Your task to perform on an android device: Empty the shopping cart on amazon.com. Search for "dell xps" on amazon.com, select the first entry, add it to the cart, then select checkout. Image 0: 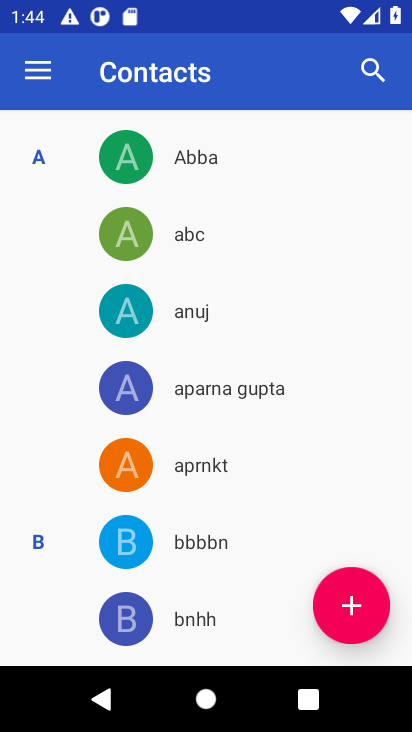
Step 0: press home button
Your task to perform on an android device: Empty the shopping cart on amazon.com. Search for "dell xps" on amazon.com, select the first entry, add it to the cart, then select checkout. Image 1: 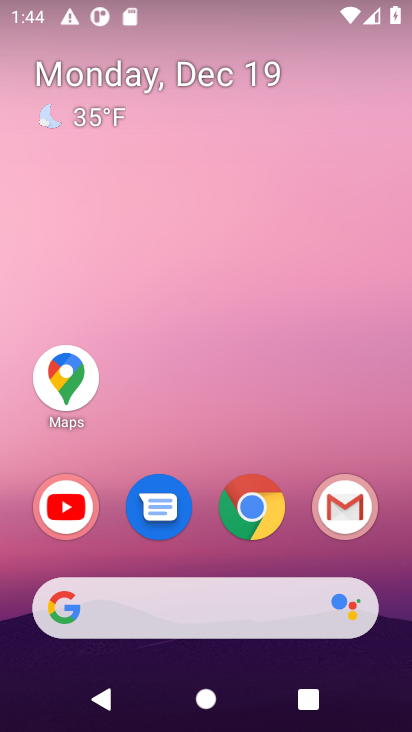
Step 1: click (254, 516)
Your task to perform on an android device: Empty the shopping cart on amazon.com. Search for "dell xps" on amazon.com, select the first entry, add it to the cart, then select checkout. Image 2: 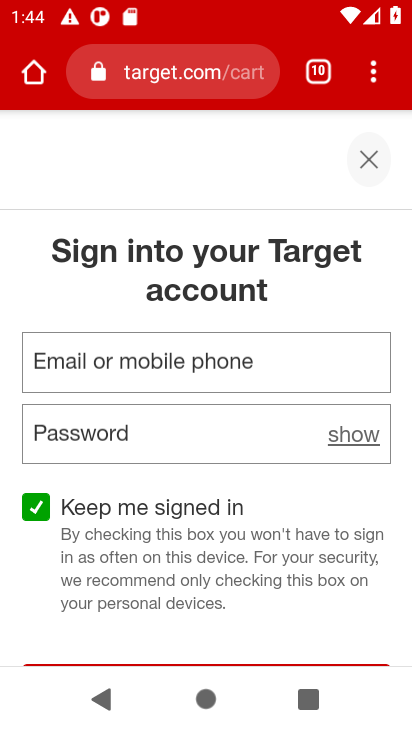
Step 2: click (162, 80)
Your task to perform on an android device: Empty the shopping cart on amazon.com. Search for "dell xps" on amazon.com, select the first entry, add it to the cart, then select checkout. Image 3: 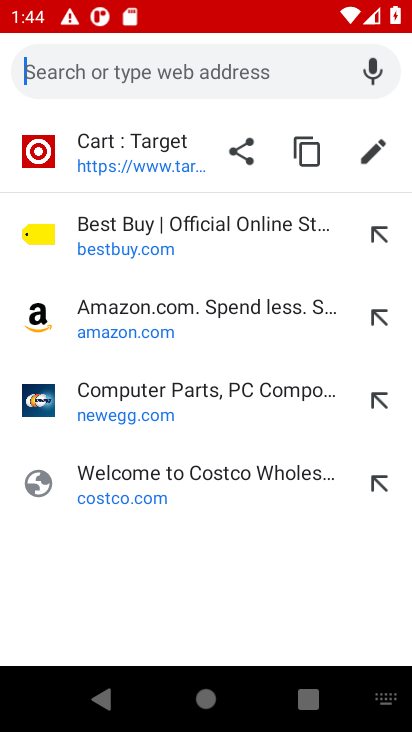
Step 3: click (136, 324)
Your task to perform on an android device: Empty the shopping cart on amazon.com. Search for "dell xps" on amazon.com, select the first entry, add it to the cart, then select checkout. Image 4: 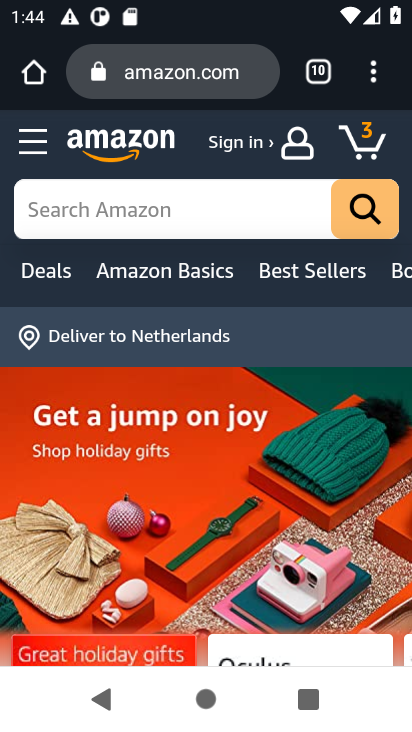
Step 4: click (371, 142)
Your task to perform on an android device: Empty the shopping cart on amazon.com. Search for "dell xps" on amazon.com, select the first entry, add it to the cart, then select checkout. Image 5: 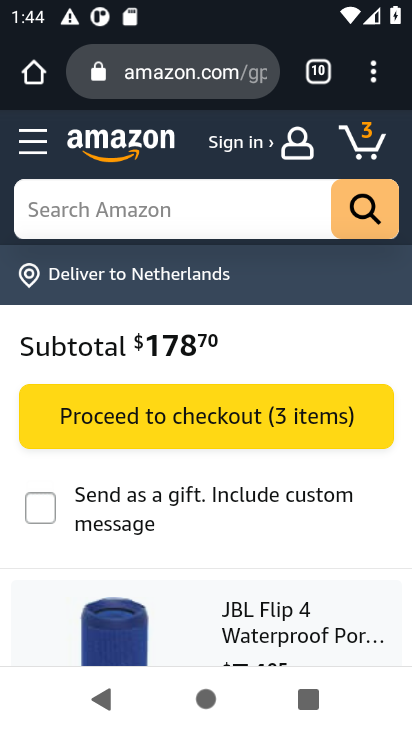
Step 5: drag from (226, 493) to (225, 188)
Your task to perform on an android device: Empty the shopping cart on amazon.com. Search for "dell xps" on amazon.com, select the first entry, add it to the cart, then select checkout. Image 6: 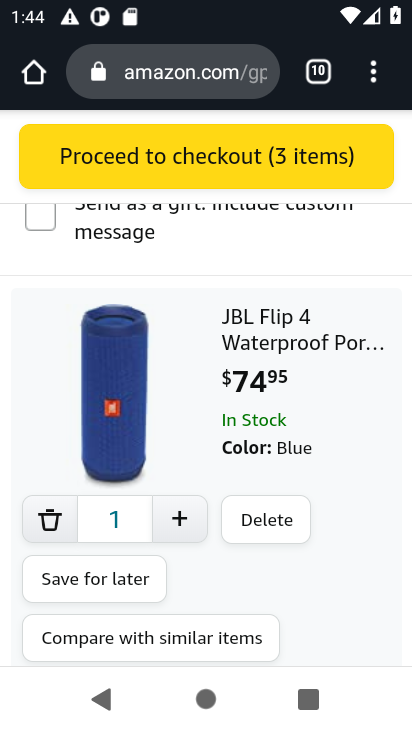
Step 6: click (256, 512)
Your task to perform on an android device: Empty the shopping cart on amazon.com. Search for "dell xps" on amazon.com, select the first entry, add it to the cart, then select checkout. Image 7: 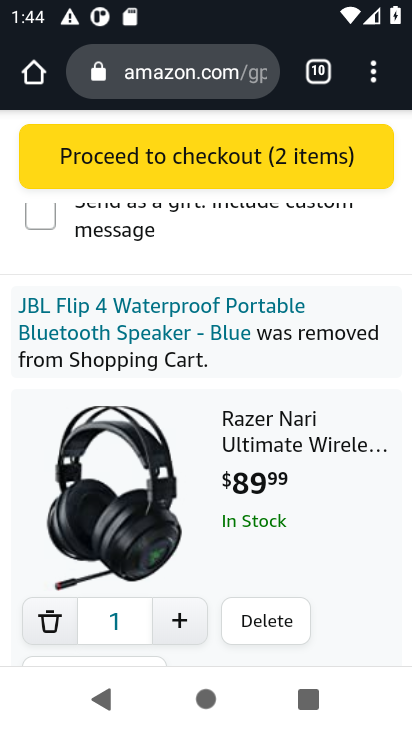
Step 7: drag from (256, 513) to (244, 284)
Your task to perform on an android device: Empty the shopping cart on amazon.com. Search for "dell xps" on amazon.com, select the first entry, add it to the cart, then select checkout. Image 8: 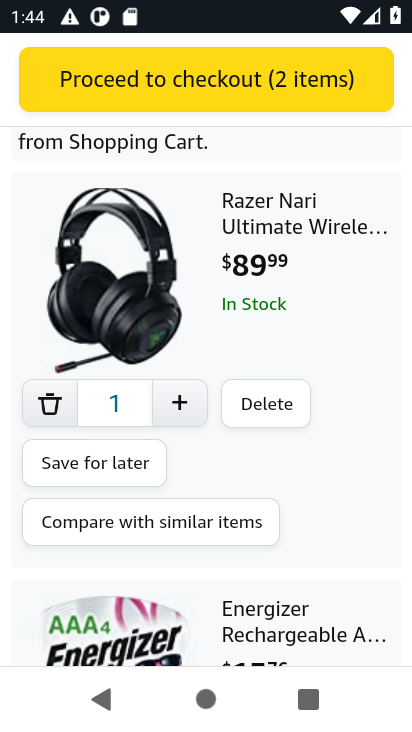
Step 8: click (256, 402)
Your task to perform on an android device: Empty the shopping cart on amazon.com. Search for "dell xps" on amazon.com, select the first entry, add it to the cart, then select checkout. Image 9: 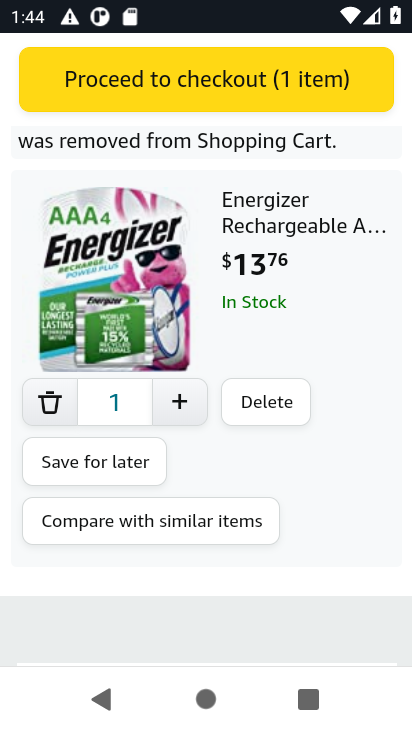
Step 9: click (256, 402)
Your task to perform on an android device: Empty the shopping cart on amazon.com. Search for "dell xps" on amazon.com, select the first entry, add it to the cart, then select checkout. Image 10: 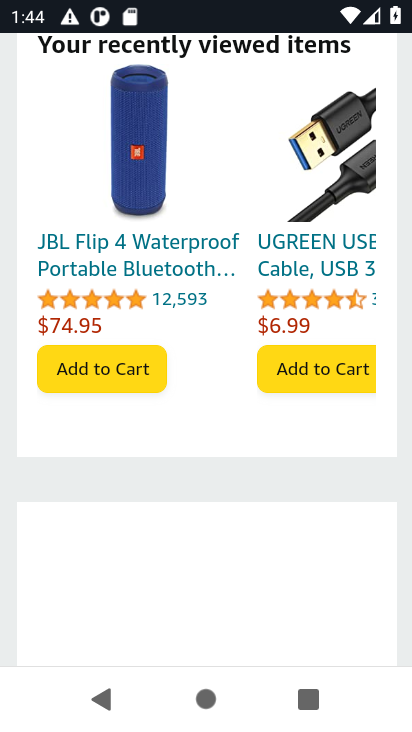
Step 10: drag from (234, 216) to (172, 707)
Your task to perform on an android device: Empty the shopping cart on amazon.com. Search for "dell xps" on amazon.com, select the first entry, add it to the cart, then select checkout. Image 11: 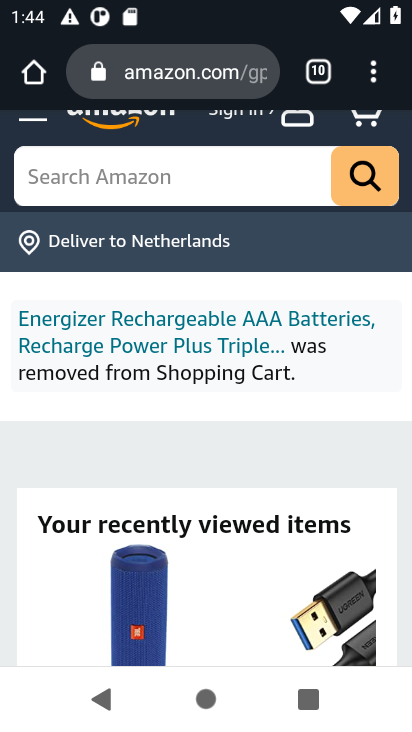
Step 11: click (97, 183)
Your task to perform on an android device: Empty the shopping cart on amazon.com. Search for "dell xps" on amazon.com, select the first entry, add it to the cart, then select checkout. Image 12: 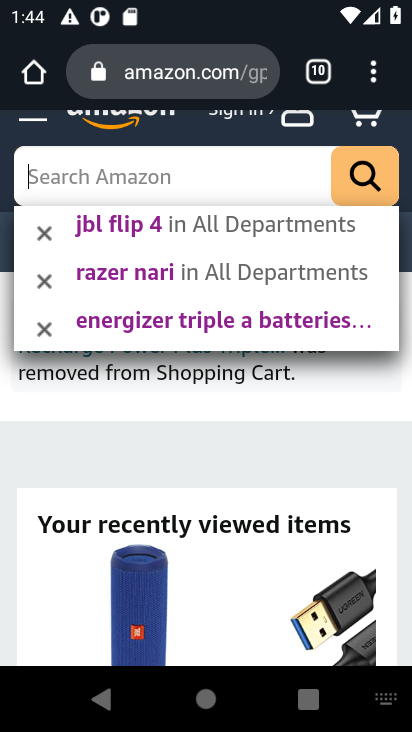
Step 12: type "dell xps"
Your task to perform on an android device: Empty the shopping cart on amazon.com. Search for "dell xps" on amazon.com, select the first entry, add it to the cart, then select checkout. Image 13: 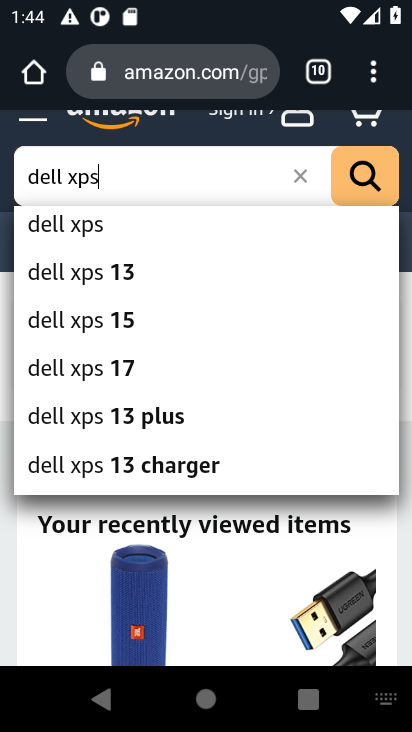
Step 13: click (85, 232)
Your task to perform on an android device: Empty the shopping cart on amazon.com. Search for "dell xps" on amazon.com, select the first entry, add it to the cart, then select checkout. Image 14: 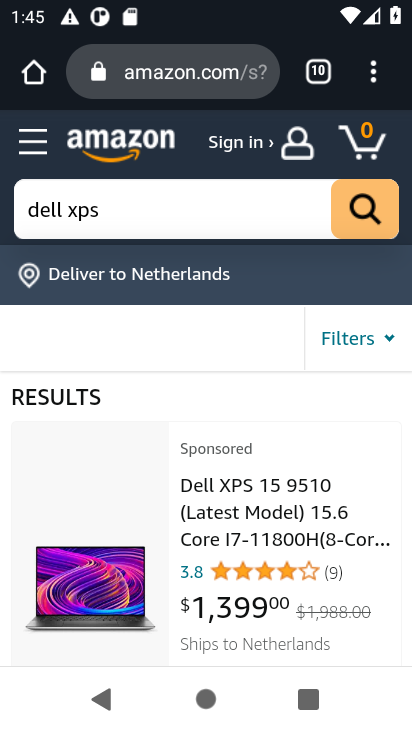
Step 14: drag from (243, 586) to (238, 397)
Your task to perform on an android device: Empty the shopping cart on amazon.com. Search for "dell xps" on amazon.com, select the first entry, add it to the cart, then select checkout. Image 15: 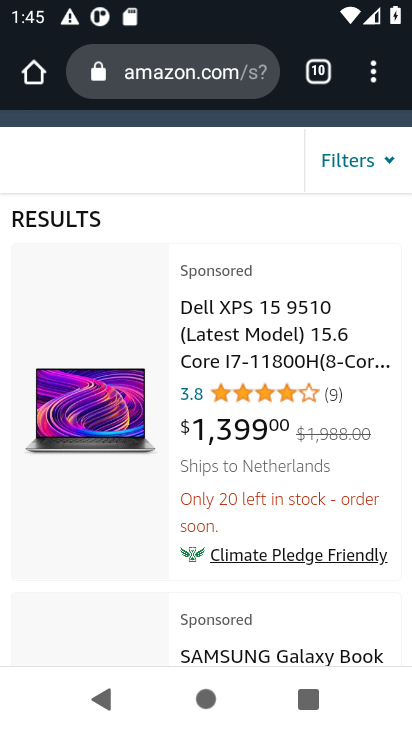
Step 15: click (238, 338)
Your task to perform on an android device: Empty the shopping cart on amazon.com. Search for "dell xps" on amazon.com, select the first entry, add it to the cart, then select checkout. Image 16: 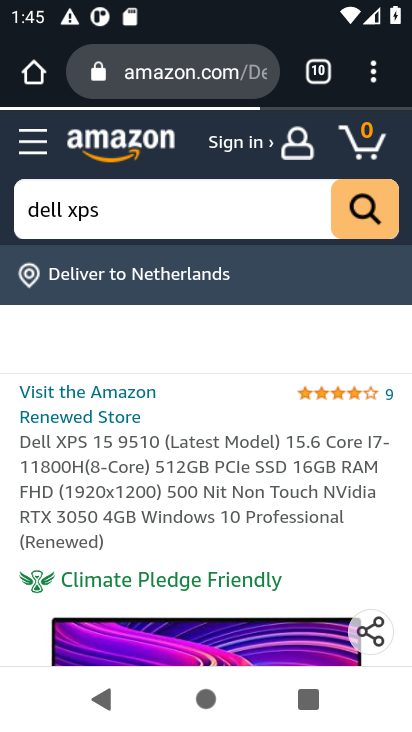
Step 16: drag from (175, 467) to (171, 182)
Your task to perform on an android device: Empty the shopping cart on amazon.com. Search for "dell xps" on amazon.com, select the first entry, add it to the cart, then select checkout. Image 17: 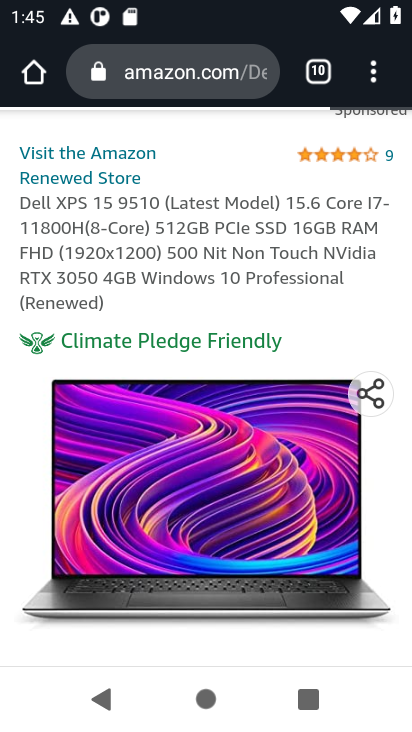
Step 17: drag from (176, 513) to (159, 168)
Your task to perform on an android device: Empty the shopping cart on amazon.com. Search for "dell xps" on amazon.com, select the first entry, add it to the cart, then select checkout. Image 18: 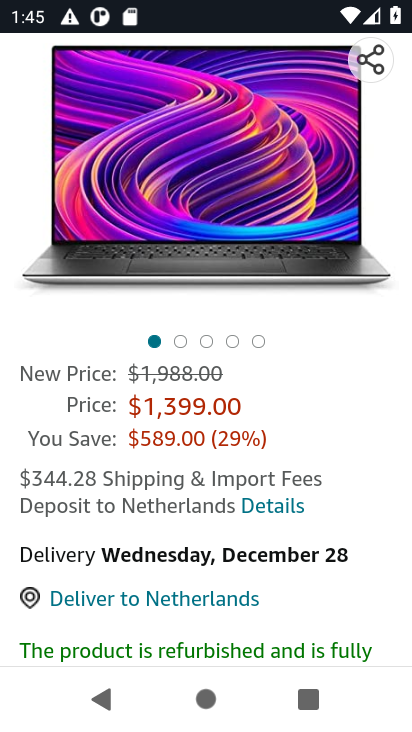
Step 18: drag from (159, 491) to (163, 190)
Your task to perform on an android device: Empty the shopping cart on amazon.com. Search for "dell xps" on amazon.com, select the first entry, add it to the cart, then select checkout. Image 19: 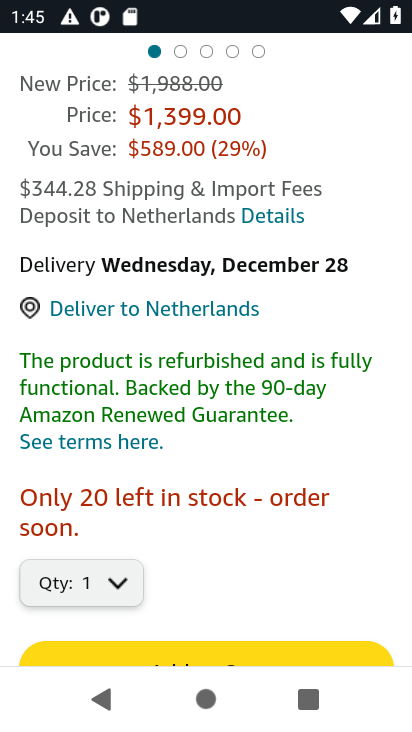
Step 19: drag from (177, 440) to (149, 129)
Your task to perform on an android device: Empty the shopping cart on amazon.com. Search for "dell xps" on amazon.com, select the first entry, add it to the cart, then select checkout. Image 20: 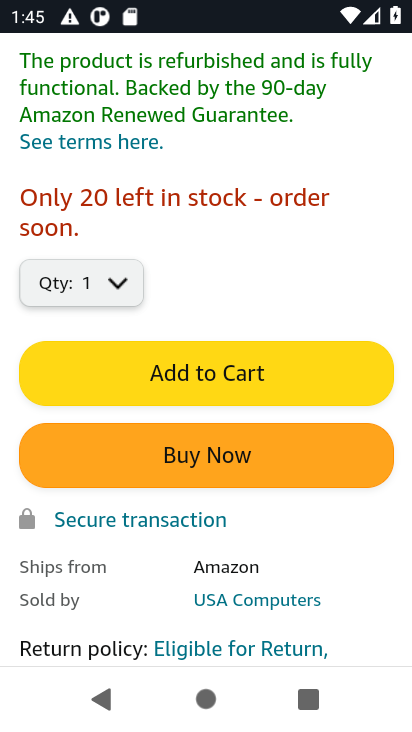
Step 20: click (181, 373)
Your task to perform on an android device: Empty the shopping cart on amazon.com. Search for "dell xps" on amazon.com, select the first entry, add it to the cart, then select checkout. Image 21: 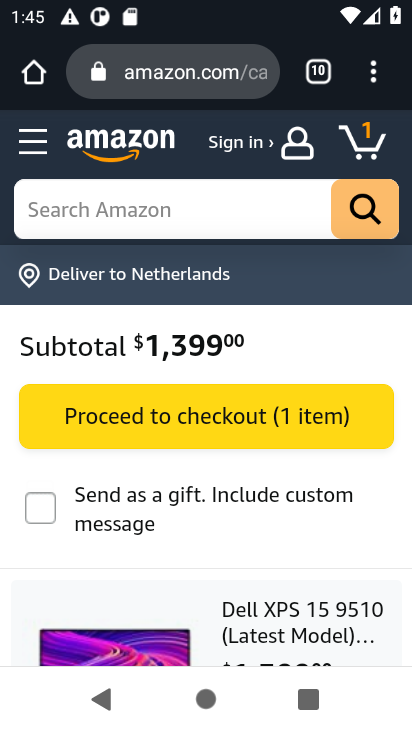
Step 21: click (181, 417)
Your task to perform on an android device: Empty the shopping cart on amazon.com. Search for "dell xps" on amazon.com, select the first entry, add it to the cart, then select checkout. Image 22: 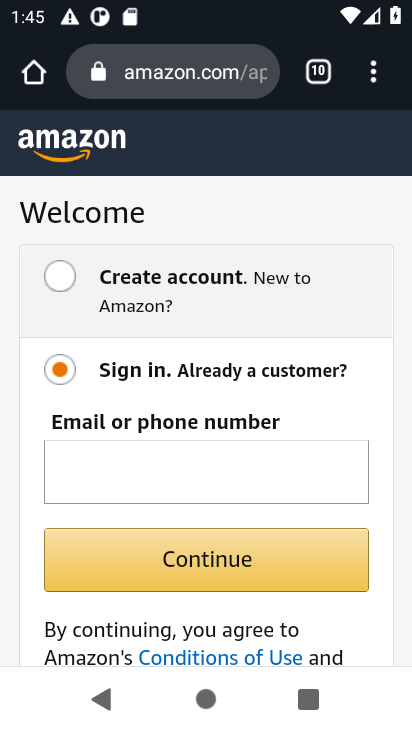
Step 22: task complete